Your task to perform on an android device: open wifi settings Image 0: 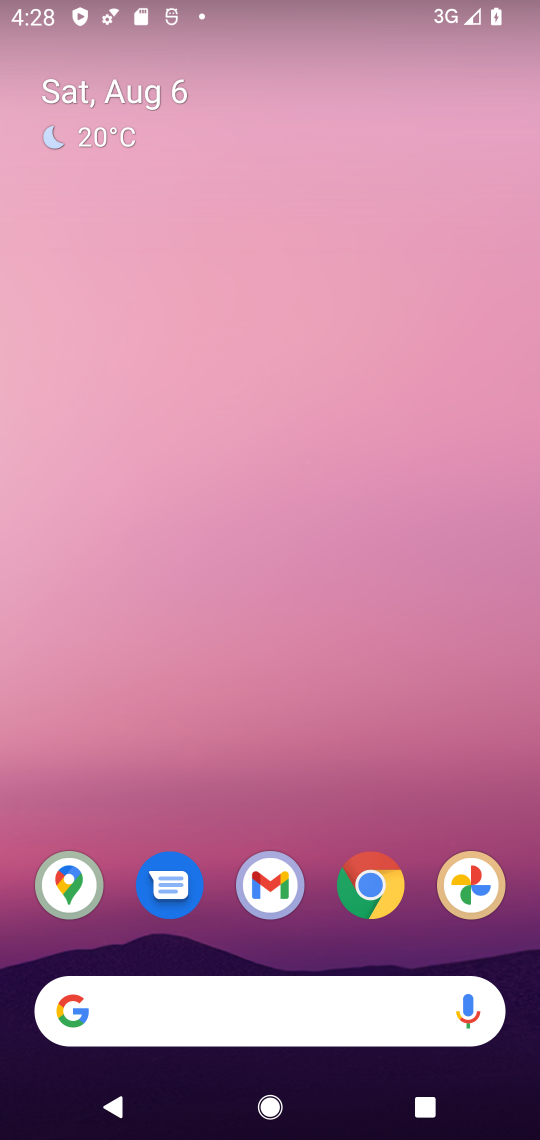
Step 0: drag from (413, 947) to (341, 7)
Your task to perform on an android device: open wifi settings Image 1: 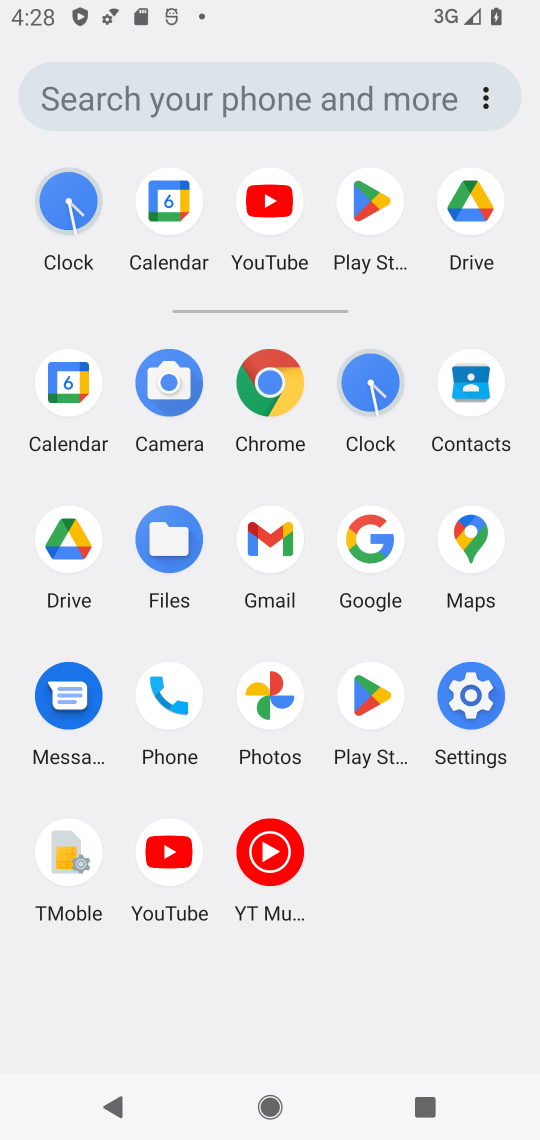
Step 1: click (461, 680)
Your task to perform on an android device: open wifi settings Image 2: 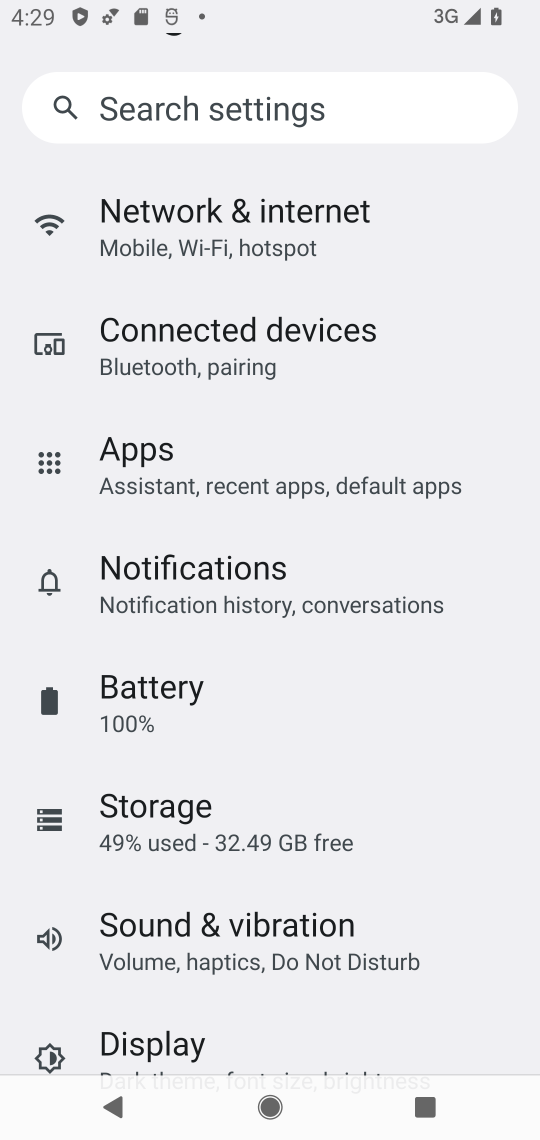
Step 2: click (233, 239)
Your task to perform on an android device: open wifi settings Image 3: 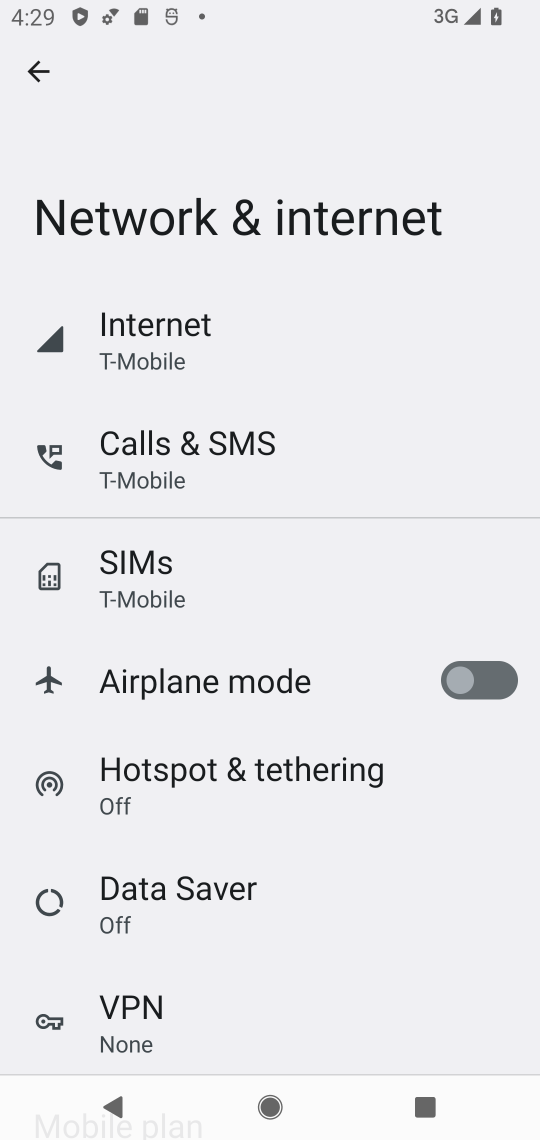
Step 3: click (187, 344)
Your task to perform on an android device: open wifi settings Image 4: 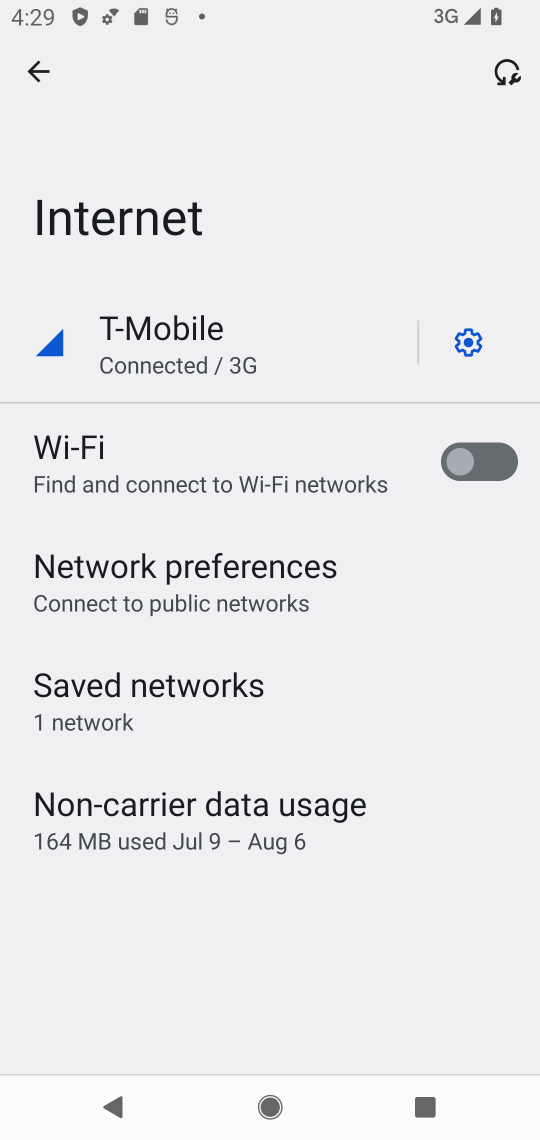
Step 4: task complete